Your task to perform on an android device: Show me popular videos on Youtube Image 0: 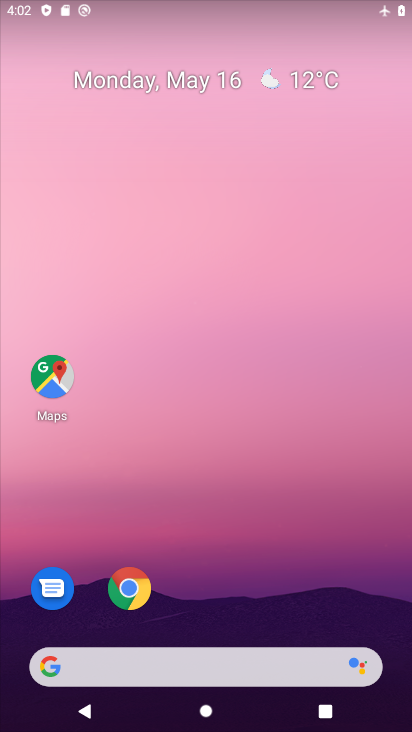
Step 0: drag from (225, 597) to (291, 37)
Your task to perform on an android device: Show me popular videos on Youtube Image 1: 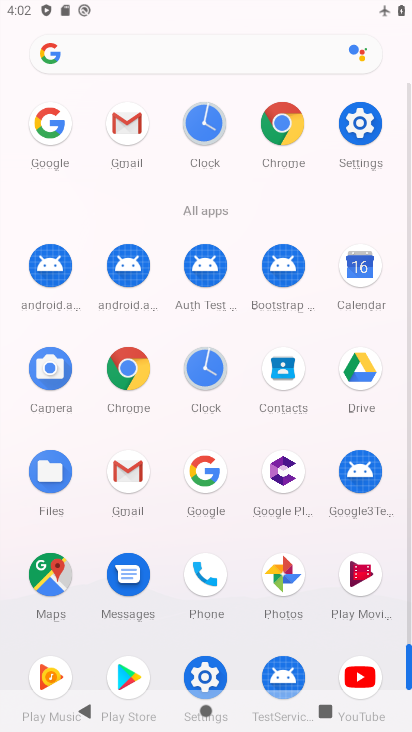
Step 1: click (367, 683)
Your task to perform on an android device: Show me popular videos on Youtube Image 2: 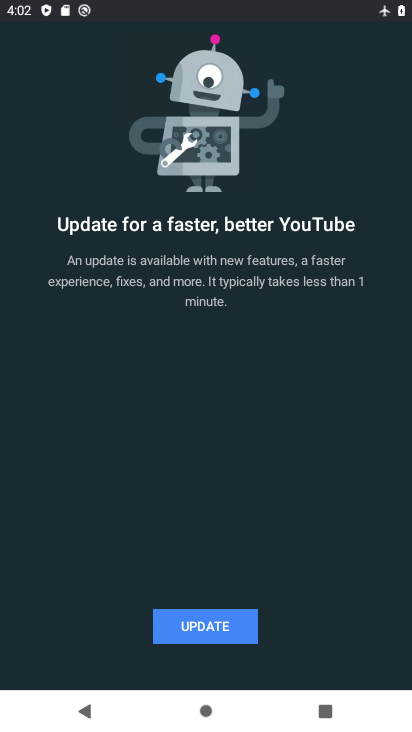
Step 2: click (221, 628)
Your task to perform on an android device: Show me popular videos on Youtube Image 3: 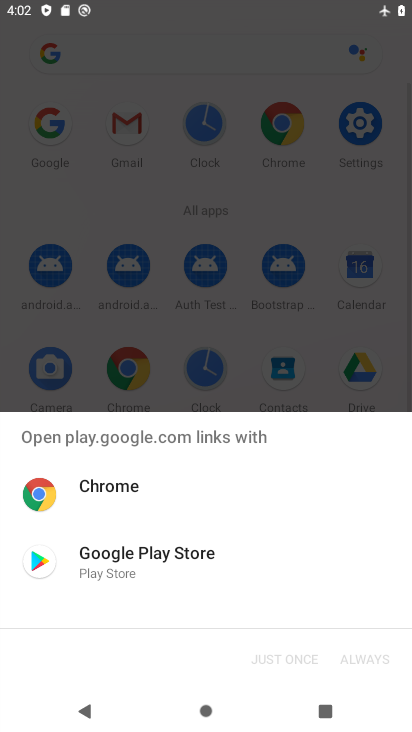
Step 3: click (177, 582)
Your task to perform on an android device: Show me popular videos on Youtube Image 4: 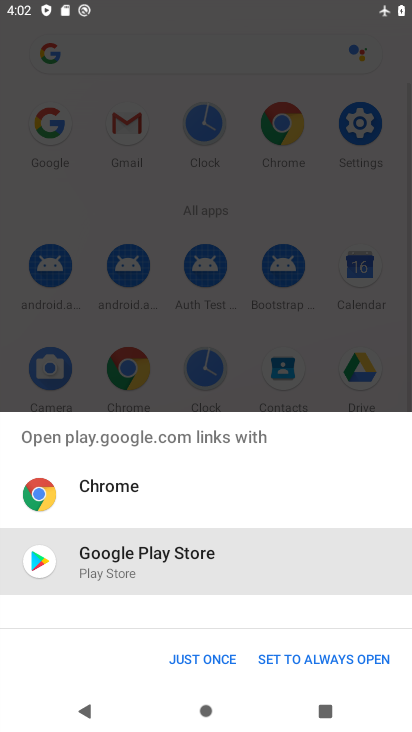
Step 4: click (205, 655)
Your task to perform on an android device: Show me popular videos on Youtube Image 5: 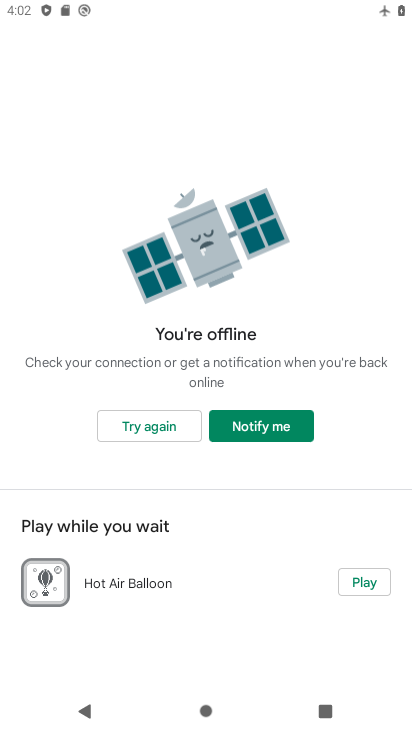
Step 5: click (156, 431)
Your task to perform on an android device: Show me popular videos on Youtube Image 6: 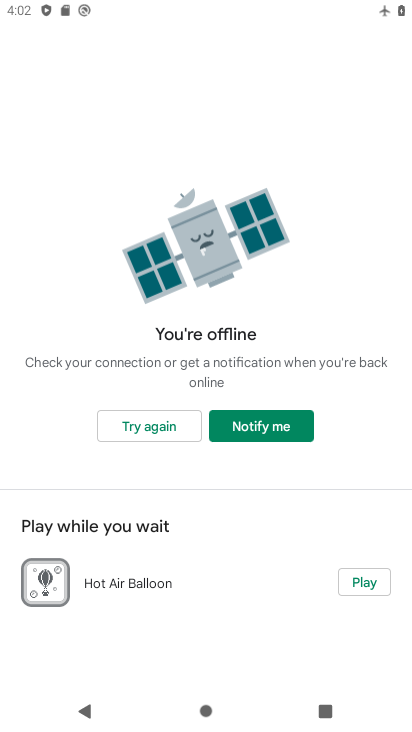
Step 6: task complete